Your task to perform on an android device: change the clock style Image 0: 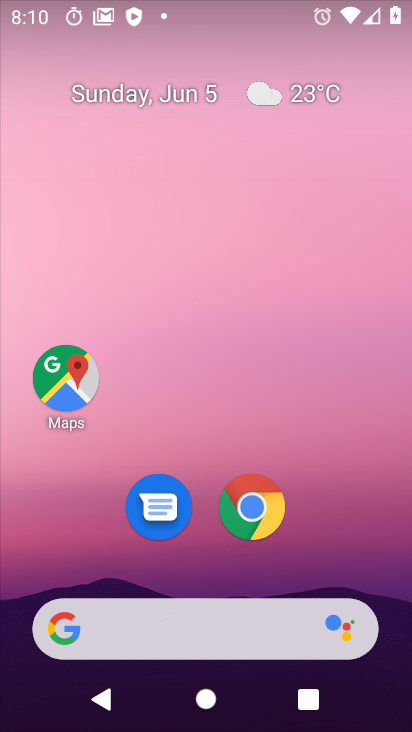
Step 0: drag from (241, 643) to (182, 150)
Your task to perform on an android device: change the clock style Image 1: 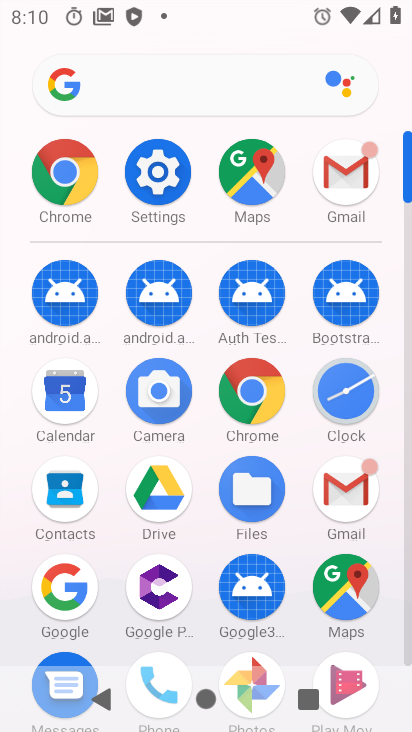
Step 1: click (364, 397)
Your task to perform on an android device: change the clock style Image 2: 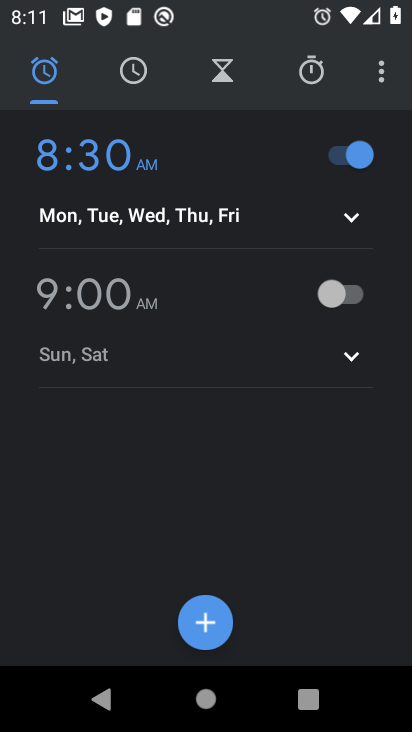
Step 2: click (370, 86)
Your task to perform on an android device: change the clock style Image 3: 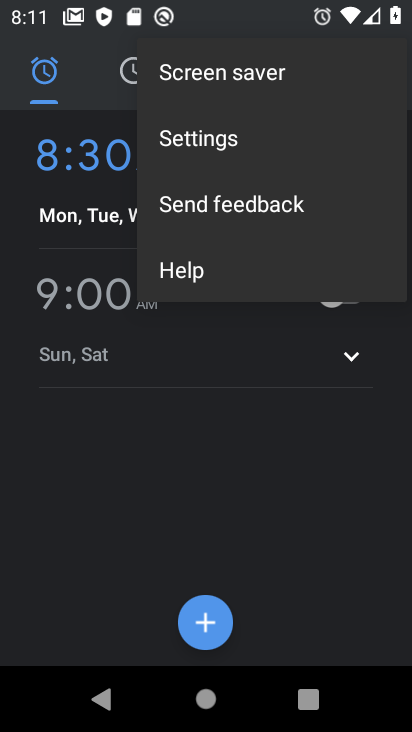
Step 3: click (222, 146)
Your task to perform on an android device: change the clock style Image 4: 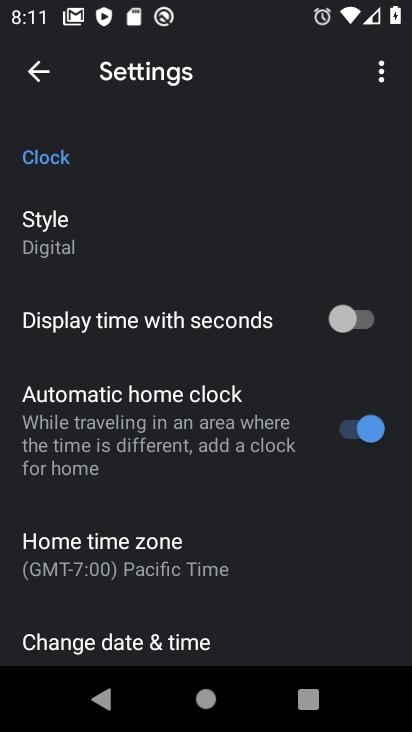
Step 4: click (67, 240)
Your task to perform on an android device: change the clock style Image 5: 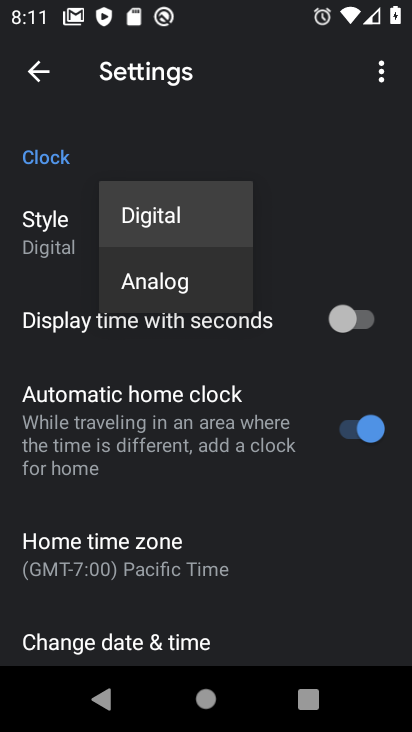
Step 5: click (139, 276)
Your task to perform on an android device: change the clock style Image 6: 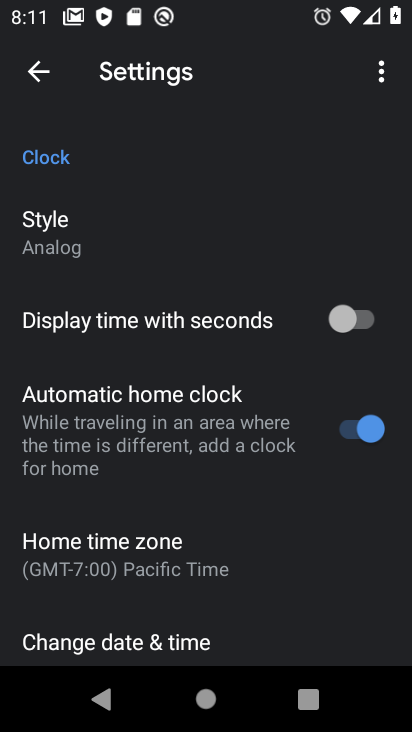
Step 6: task complete